Your task to perform on an android device: turn on showing notifications on the lock screen Image 0: 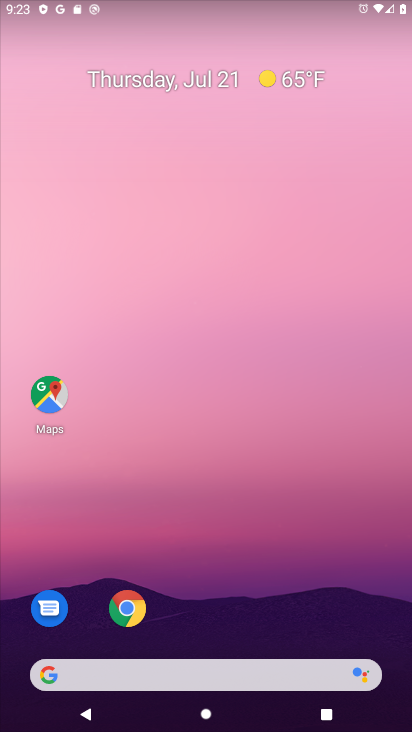
Step 0: drag from (252, 440) to (344, 83)
Your task to perform on an android device: turn on showing notifications on the lock screen Image 1: 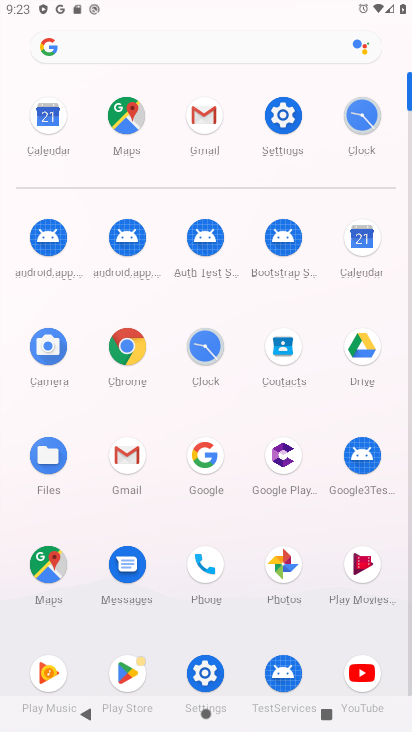
Step 1: click (216, 671)
Your task to perform on an android device: turn on showing notifications on the lock screen Image 2: 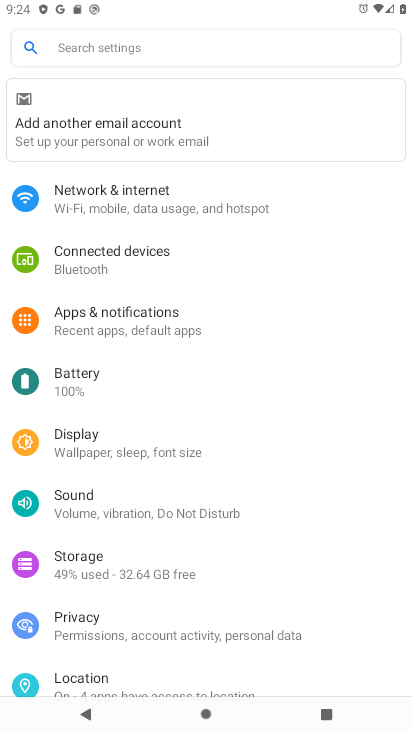
Step 2: click (89, 314)
Your task to perform on an android device: turn on showing notifications on the lock screen Image 3: 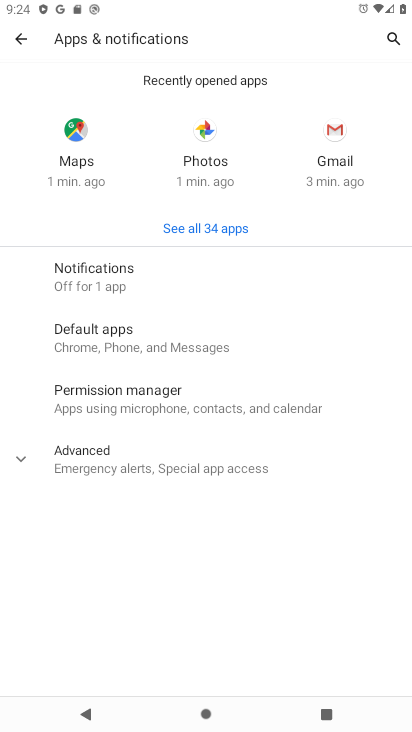
Step 3: task complete